Your task to perform on an android device: Search for Italian restaurants on Maps Image 0: 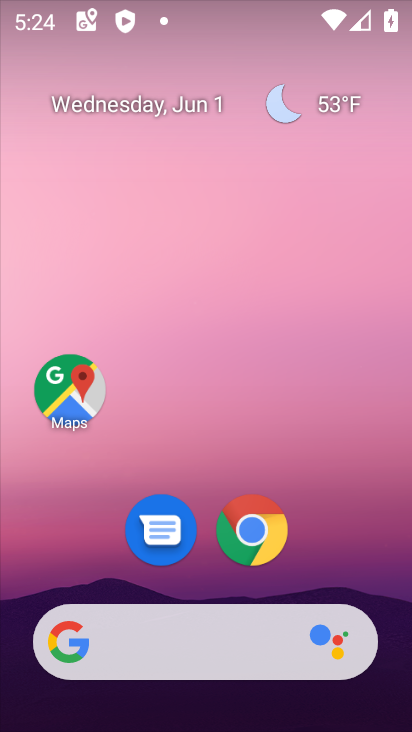
Step 0: click (69, 398)
Your task to perform on an android device: Search for Italian restaurants on Maps Image 1: 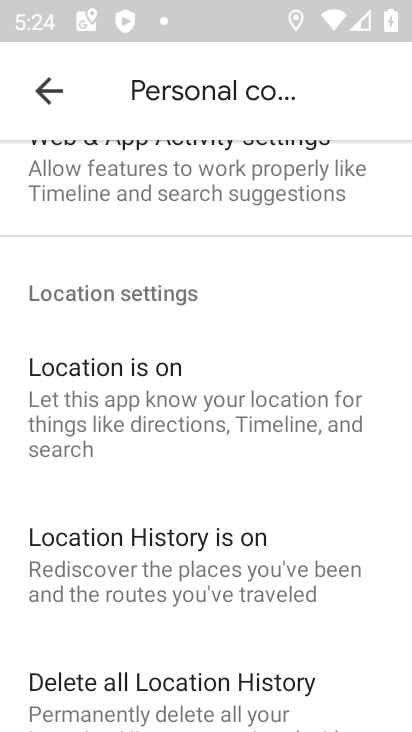
Step 1: click (44, 105)
Your task to perform on an android device: Search for Italian restaurants on Maps Image 2: 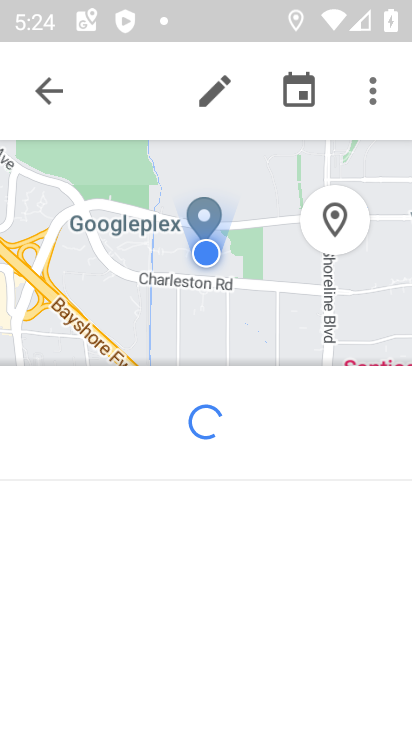
Step 2: click (46, 100)
Your task to perform on an android device: Search for Italian restaurants on Maps Image 3: 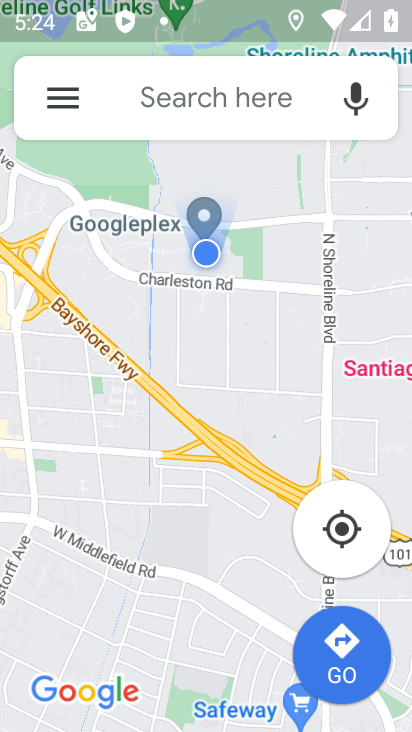
Step 3: click (215, 101)
Your task to perform on an android device: Search for Italian restaurants on Maps Image 4: 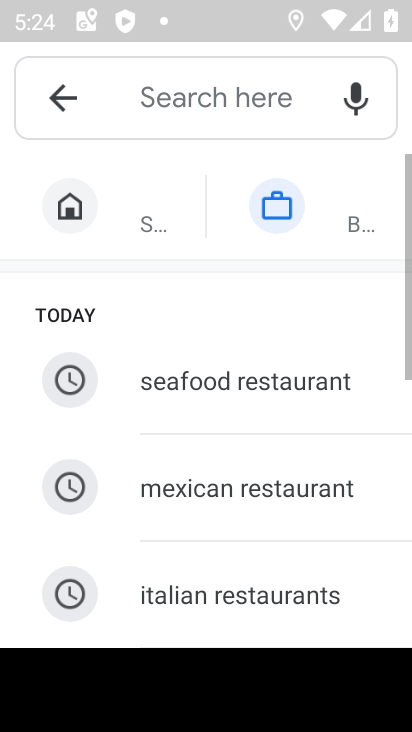
Step 4: click (214, 600)
Your task to perform on an android device: Search for Italian restaurants on Maps Image 5: 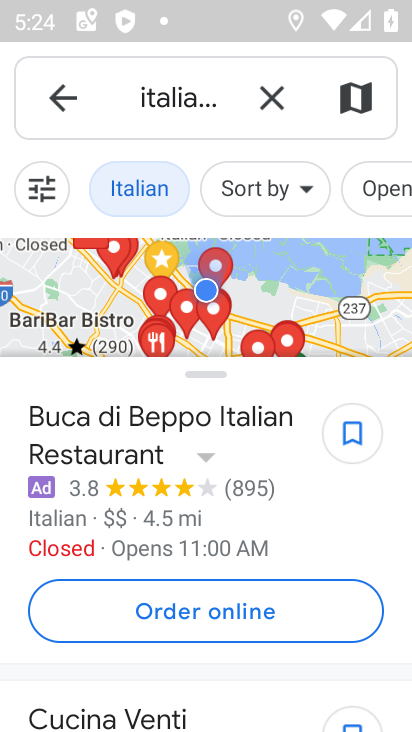
Step 5: task complete